Your task to perform on an android device: allow notifications from all sites in the chrome app Image 0: 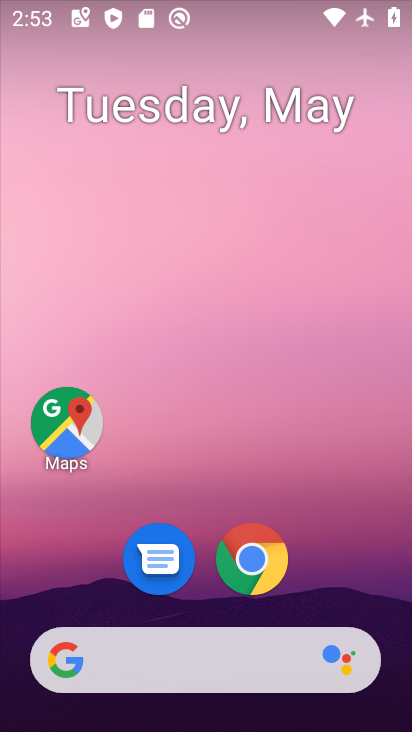
Step 0: drag from (235, 667) to (363, 185)
Your task to perform on an android device: allow notifications from all sites in the chrome app Image 1: 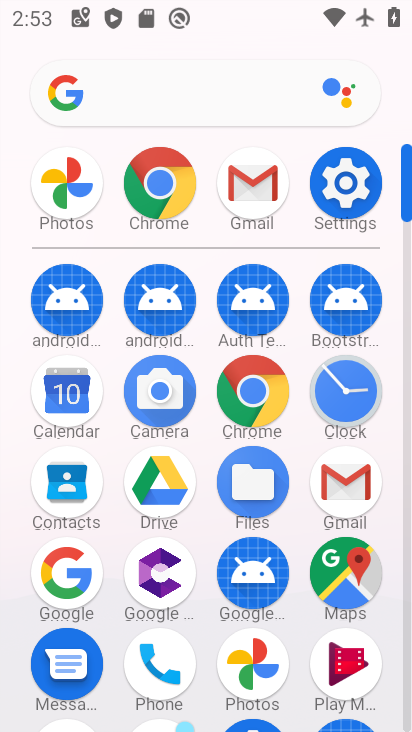
Step 1: click (173, 199)
Your task to perform on an android device: allow notifications from all sites in the chrome app Image 2: 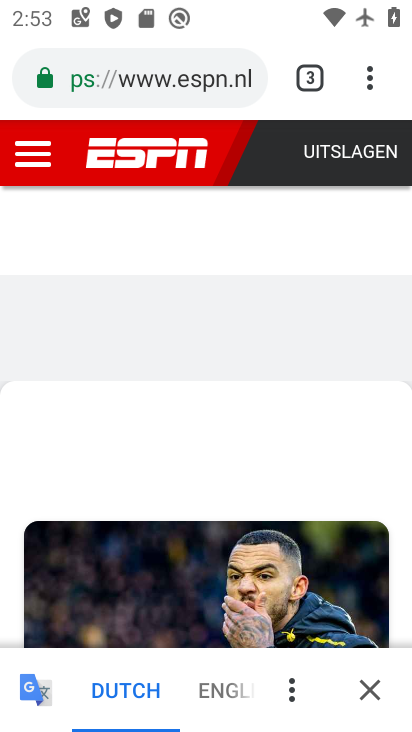
Step 2: drag from (369, 81) to (211, 631)
Your task to perform on an android device: allow notifications from all sites in the chrome app Image 3: 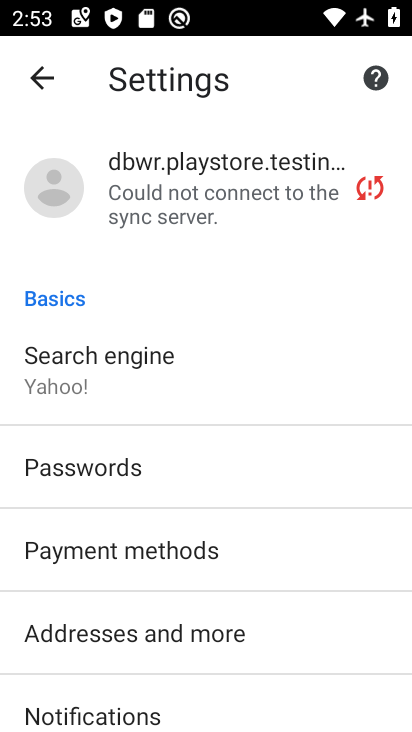
Step 3: drag from (224, 593) to (347, 122)
Your task to perform on an android device: allow notifications from all sites in the chrome app Image 4: 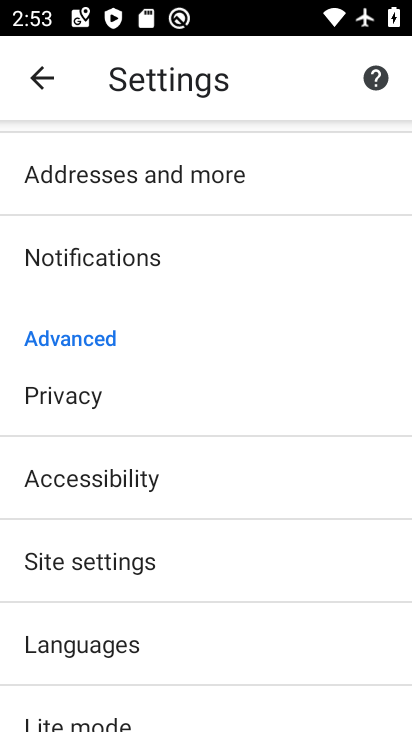
Step 4: click (126, 570)
Your task to perform on an android device: allow notifications from all sites in the chrome app Image 5: 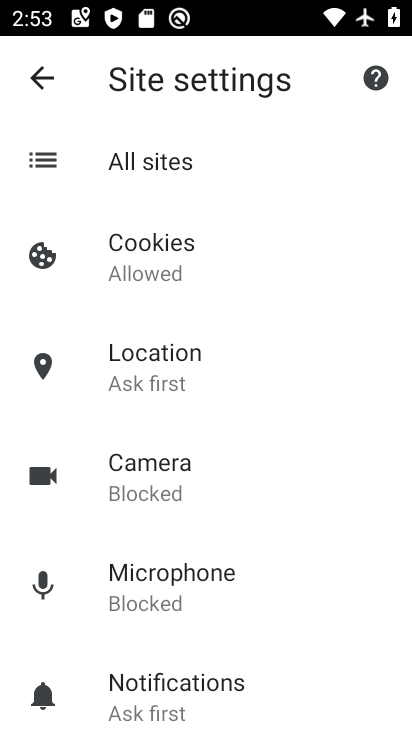
Step 5: click (175, 252)
Your task to perform on an android device: allow notifications from all sites in the chrome app Image 6: 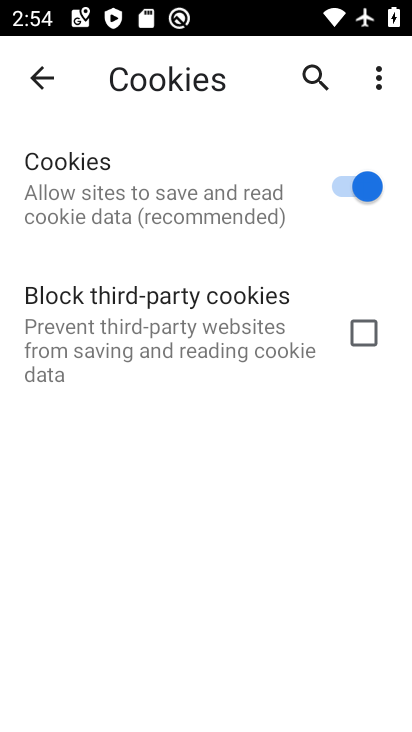
Step 6: task complete